Your task to perform on an android device: open device folders in google photos Image 0: 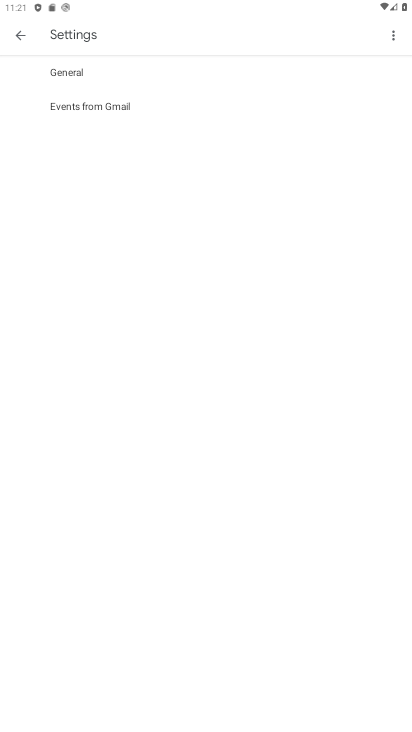
Step 0: press home button
Your task to perform on an android device: open device folders in google photos Image 1: 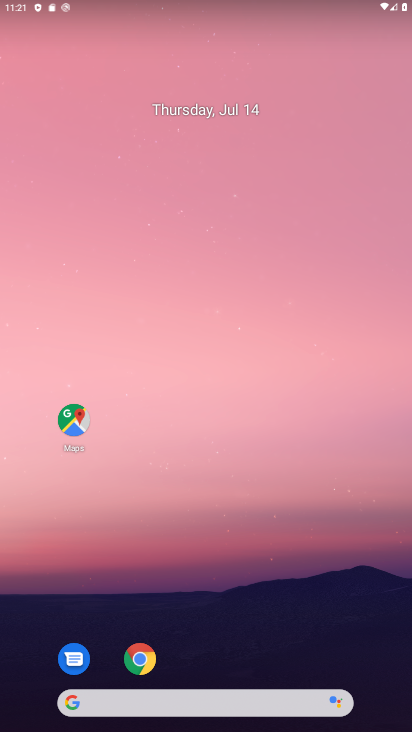
Step 1: drag from (233, 675) to (376, 64)
Your task to perform on an android device: open device folders in google photos Image 2: 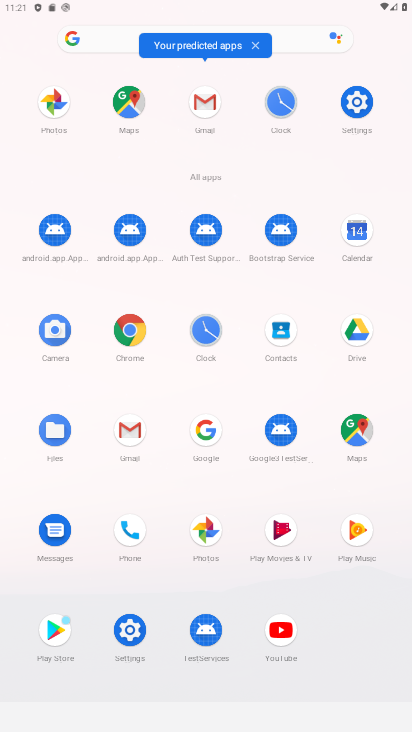
Step 2: click (204, 528)
Your task to perform on an android device: open device folders in google photos Image 3: 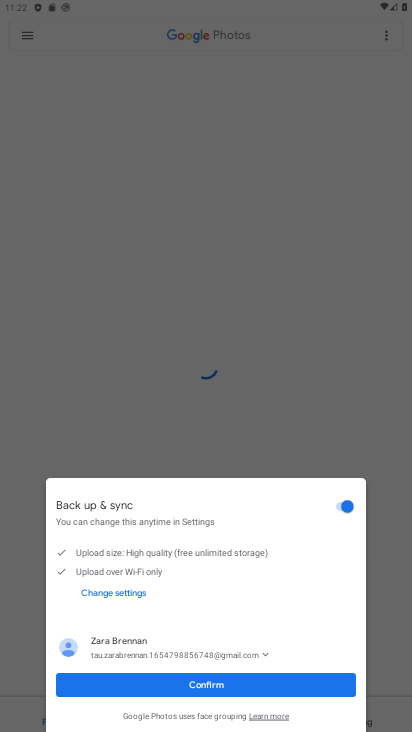
Step 3: drag from (34, 40) to (407, 725)
Your task to perform on an android device: open device folders in google photos Image 4: 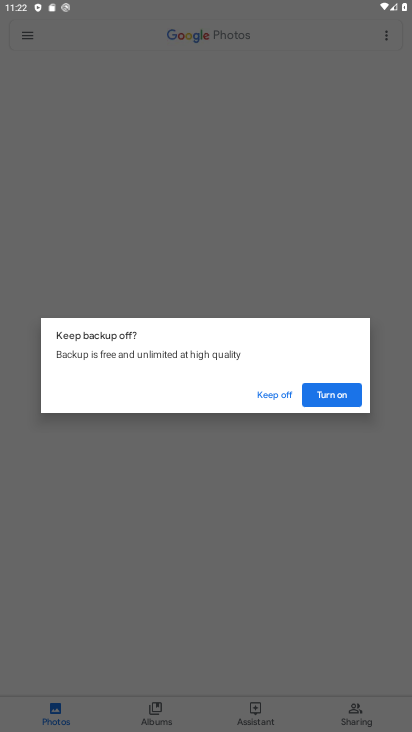
Step 4: click (275, 395)
Your task to perform on an android device: open device folders in google photos Image 5: 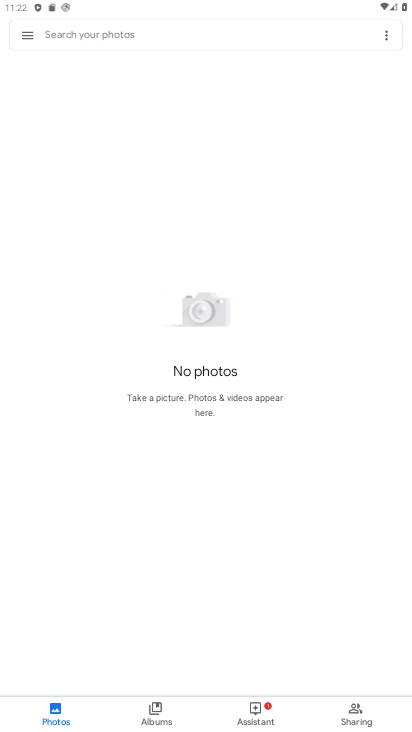
Step 5: click (19, 26)
Your task to perform on an android device: open device folders in google photos Image 6: 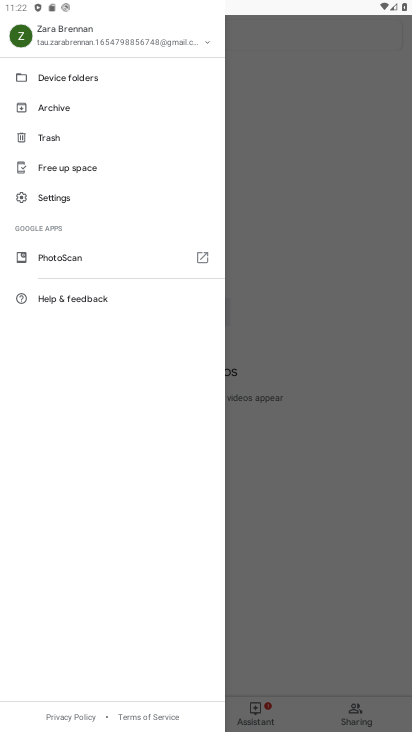
Step 6: click (144, 78)
Your task to perform on an android device: open device folders in google photos Image 7: 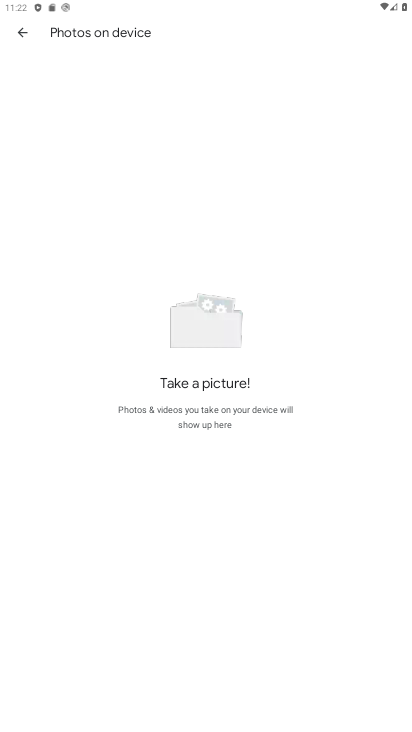
Step 7: task complete